Your task to perform on an android device: Open Google Maps Image 0: 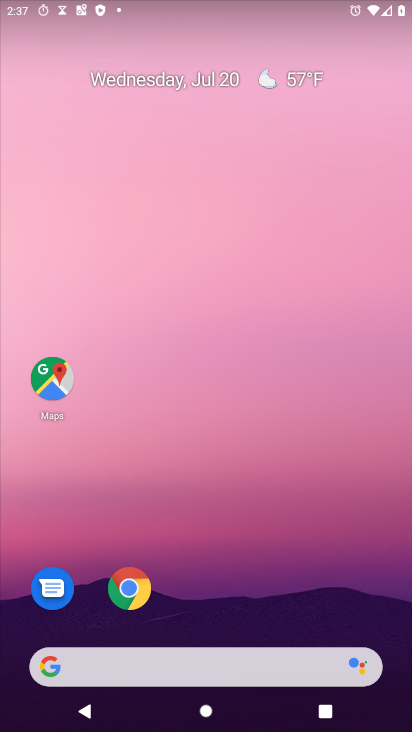
Step 0: drag from (212, 653) to (201, 9)
Your task to perform on an android device: Open Google Maps Image 1: 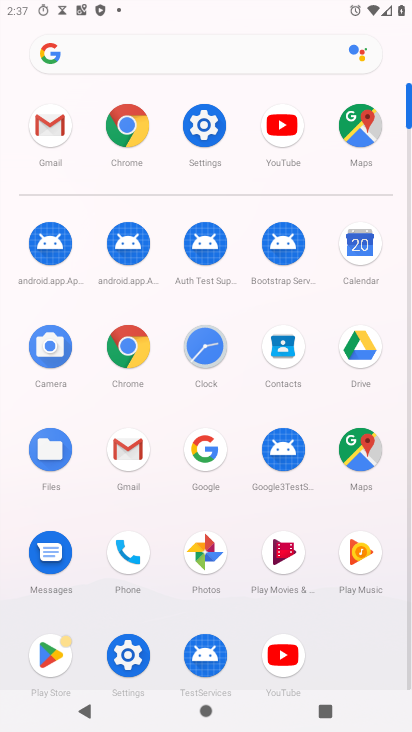
Step 1: click (129, 339)
Your task to perform on an android device: Open Google Maps Image 2: 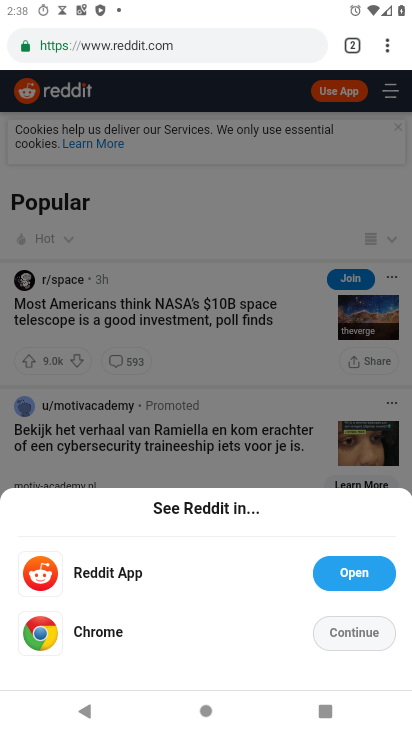
Step 2: press home button
Your task to perform on an android device: Open Google Maps Image 3: 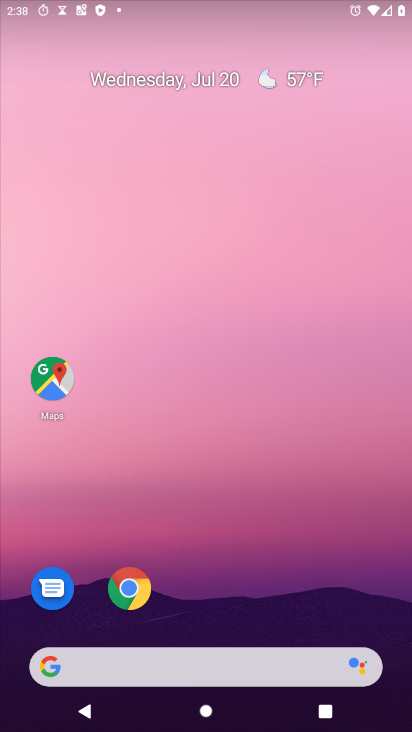
Step 3: drag from (231, 657) to (285, 1)
Your task to perform on an android device: Open Google Maps Image 4: 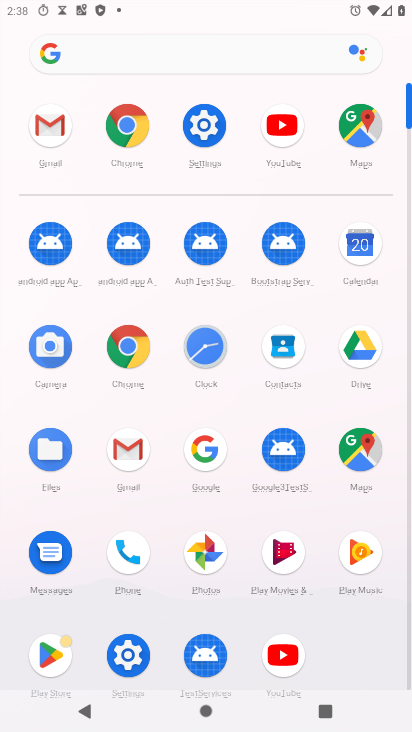
Step 4: click (360, 457)
Your task to perform on an android device: Open Google Maps Image 5: 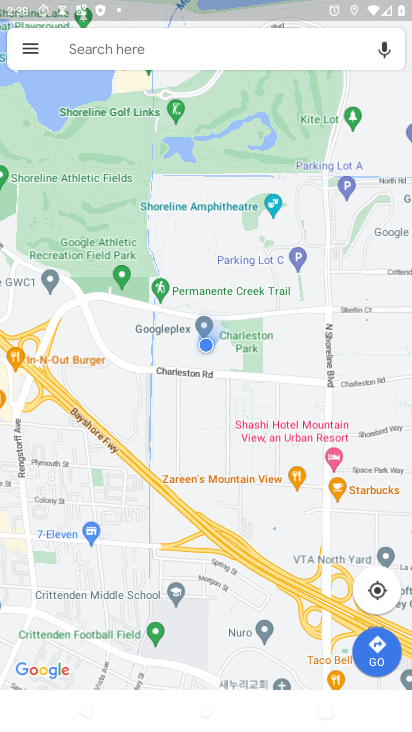
Step 5: task complete